Your task to perform on an android device: toggle improve location accuracy Image 0: 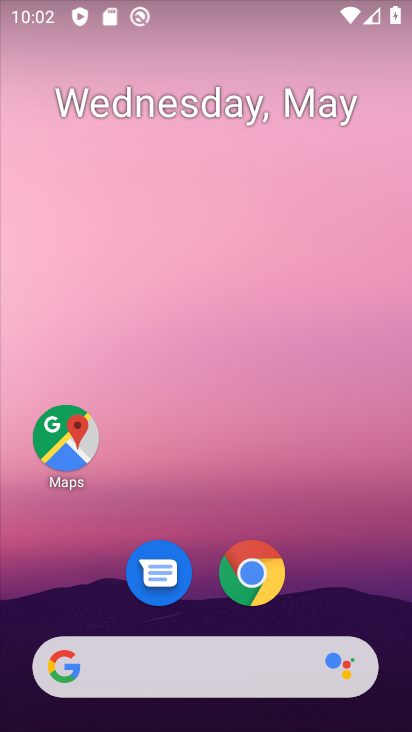
Step 0: drag from (359, 650) to (180, 145)
Your task to perform on an android device: toggle improve location accuracy Image 1: 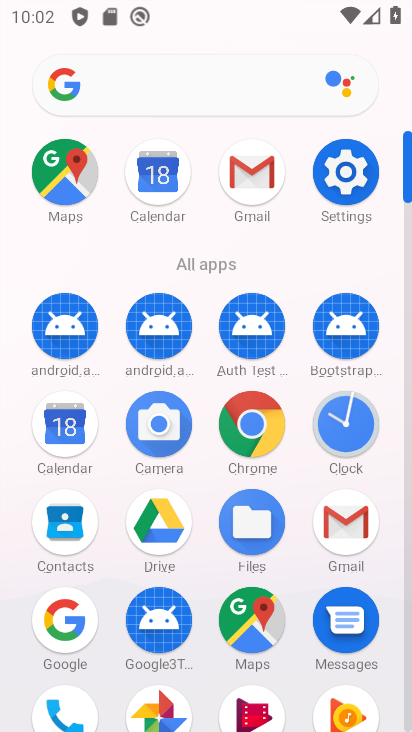
Step 1: click (356, 171)
Your task to perform on an android device: toggle improve location accuracy Image 2: 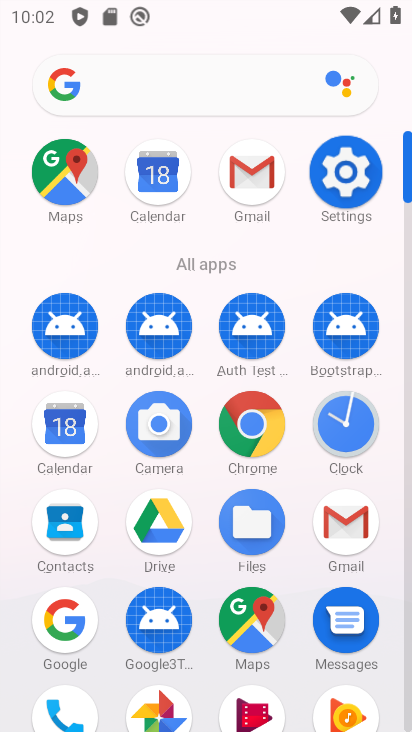
Step 2: click (356, 171)
Your task to perform on an android device: toggle improve location accuracy Image 3: 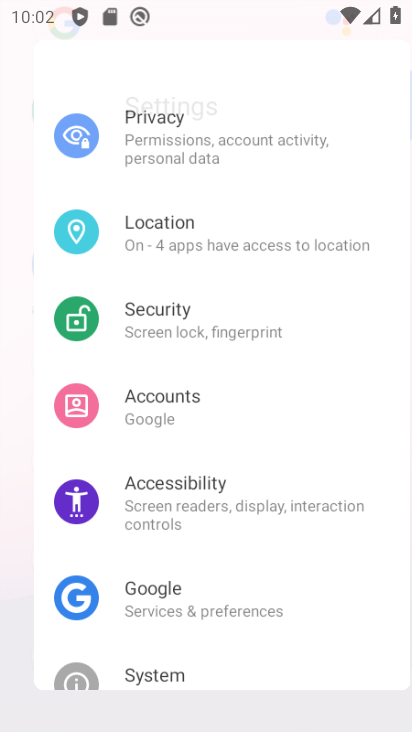
Step 3: click (356, 171)
Your task to perform on an android device: toggle improve location accuracy Image 4: 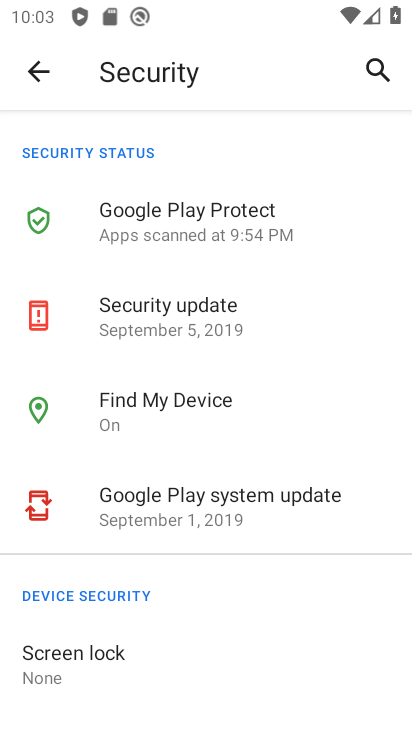
Step 4: click (26, 71)
Your task to perform on an android device: toggle improve location accuracy Image 5: 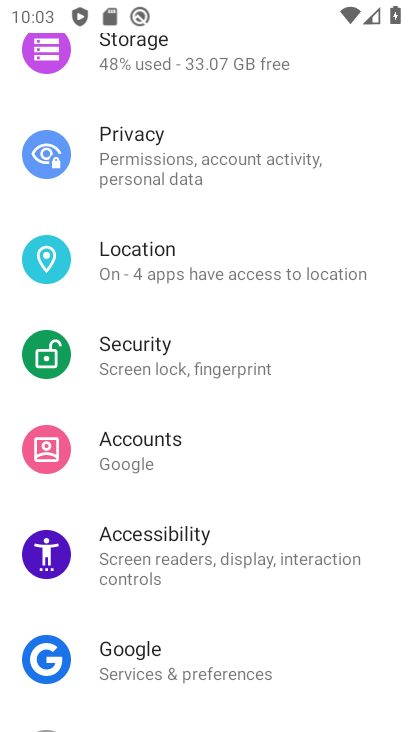
Step 5: click (148, 266)
Your task to perform on an android device: toggle improve location accuracy Image 6: 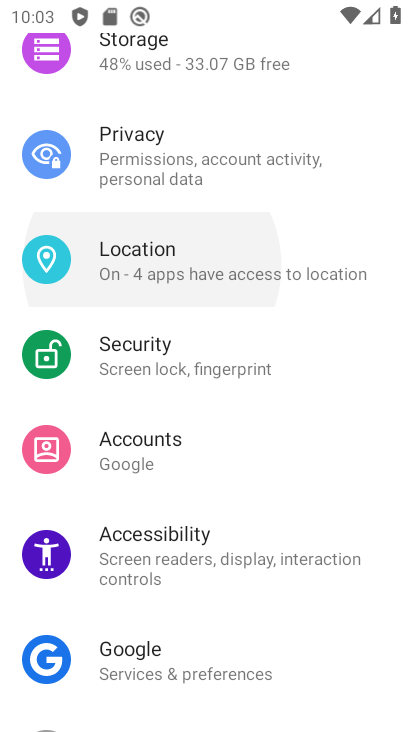
Step 6: click (148, 266)
Your task to perform on an android device: toggle improve location accuracy Image 7: 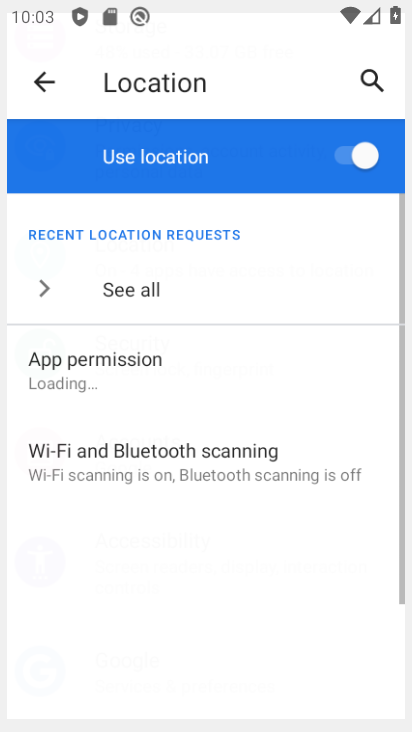
Step 7: click (148, 266)
Your task to perform on an android device: toggle improve location accuracy Image 8: 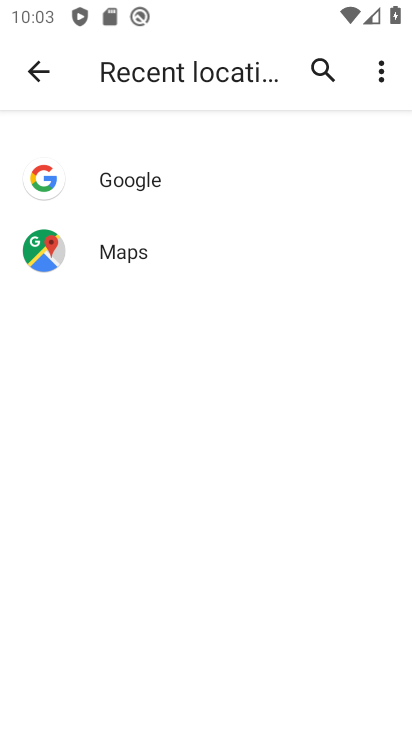
Step 8: click (42, 83)
Your task to perform on an android device: toggle improve location accuracy Image 9: 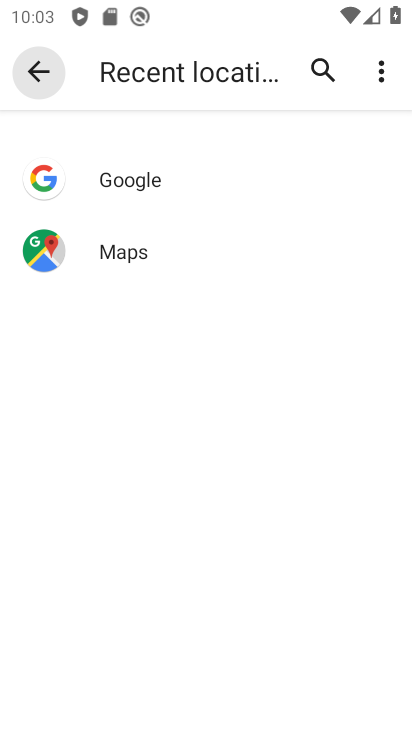
Step 9: click (42, 83)
Your task to perform on an android device: toggle improve location accuracy Image 10: 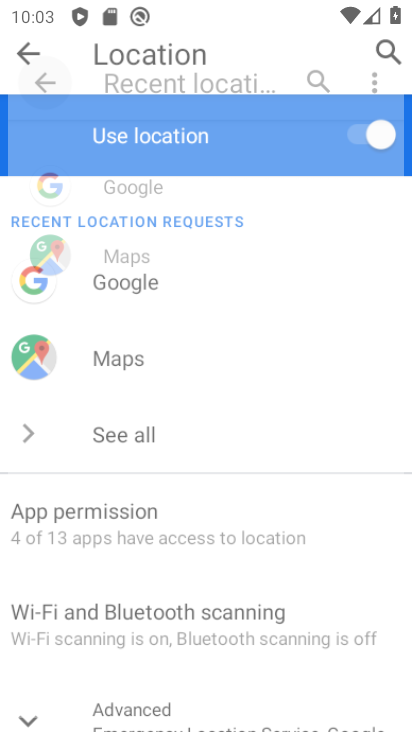
Step 10: click (42, 83)
Your task to perform on an android device: toggle improve location accuracy Image 11: 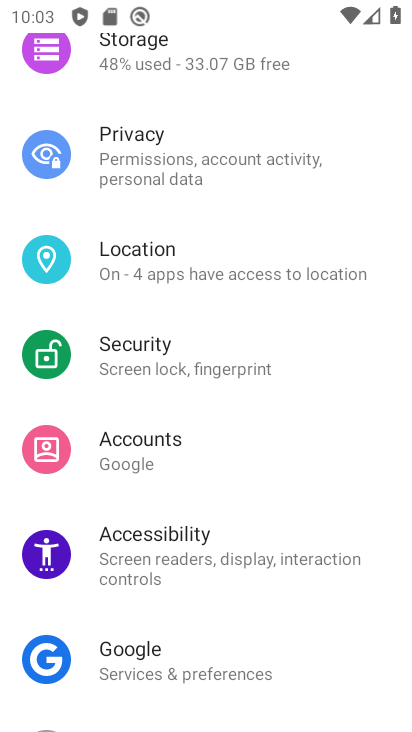
Step 11: click (161, 269)
Your task to perform on an android device: toggle improve location accuracy Image 12: 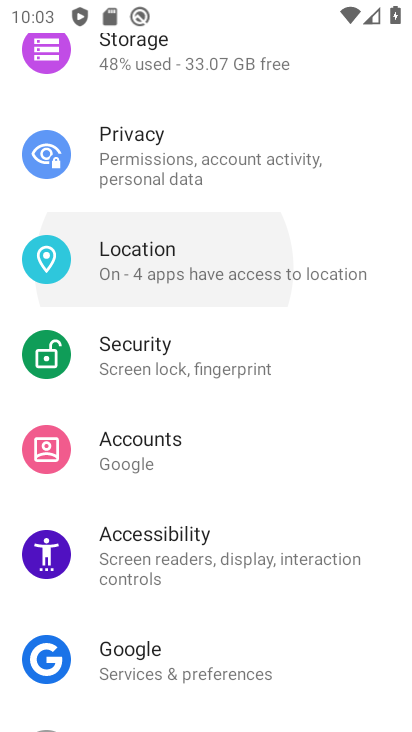
Step 12: click (161, 269)
Your task to perform on an android device: toggle improve location accuracy Image 13: 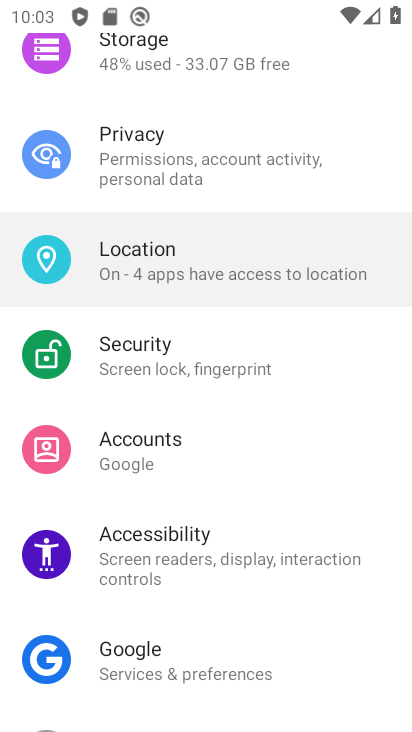
Step 13: click (161, 269)
Your task to perform on an android device: toggle improve location accuracy Image 14: 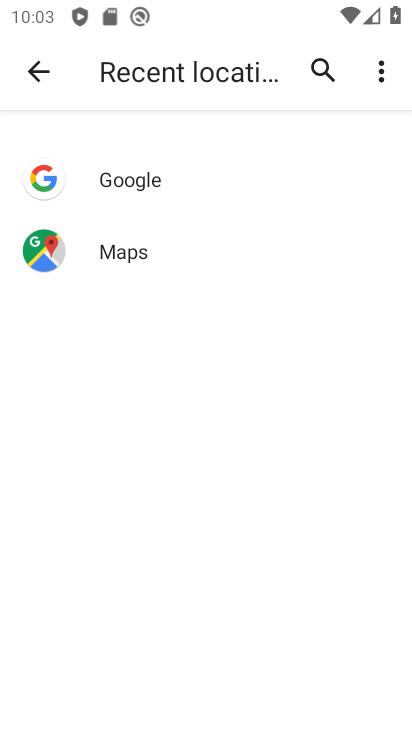
Step 14: click (35, 62)
Your task to perform on an android device: toggle improve location accuracy Image 15: 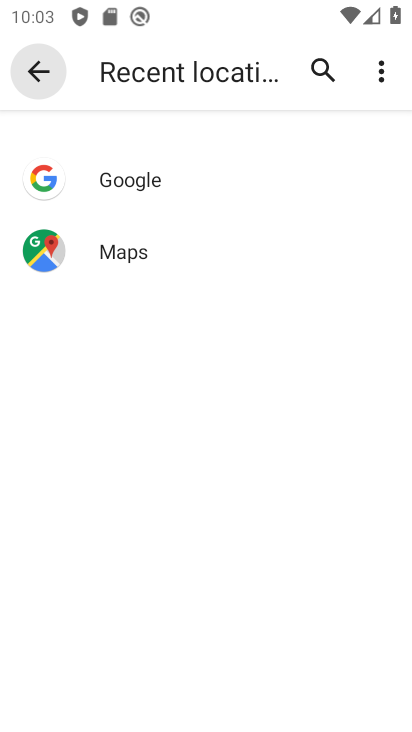
Step 15: click (33, 64)
Your task to perform on an android device: toggle improve location accuracy Image 16: 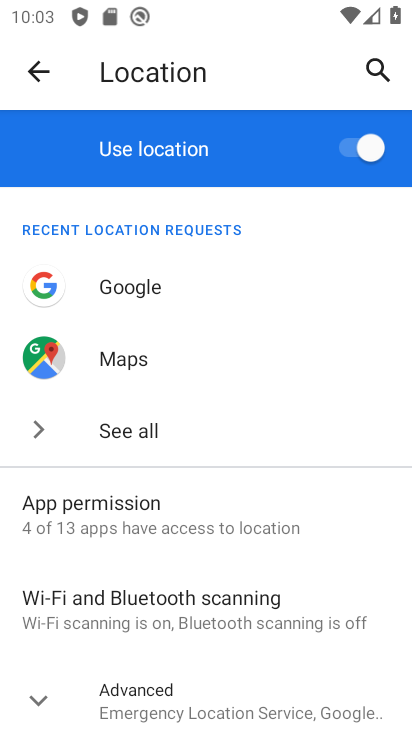
Step 16: drag from (172, 610) to (132, 389)
Your task to perform on an android device: toggle improve location accuracy Image 17: 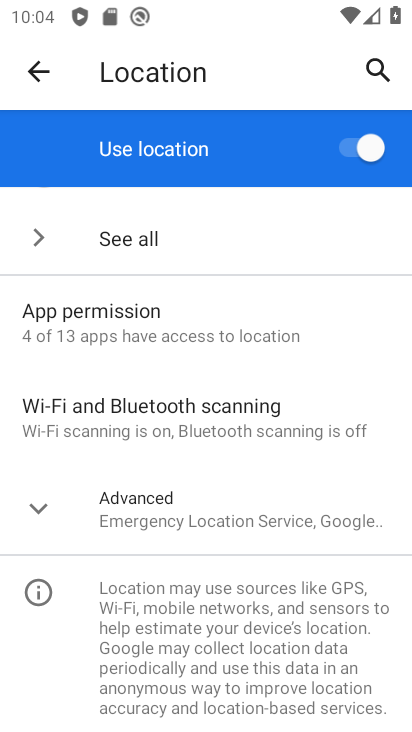
Step 17: click (119, 319)
Your task to perform on an android device: toggle improve location accuracy Image 18: 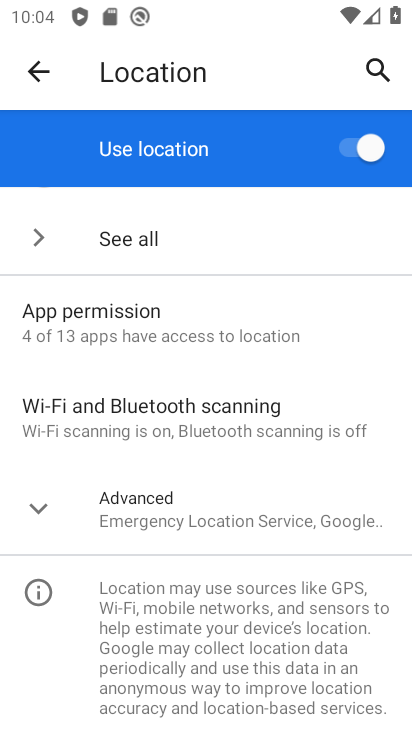
Step 18: click (119, 319)
Your task to perform on an android device: toggle improve location accuracy Image 19: 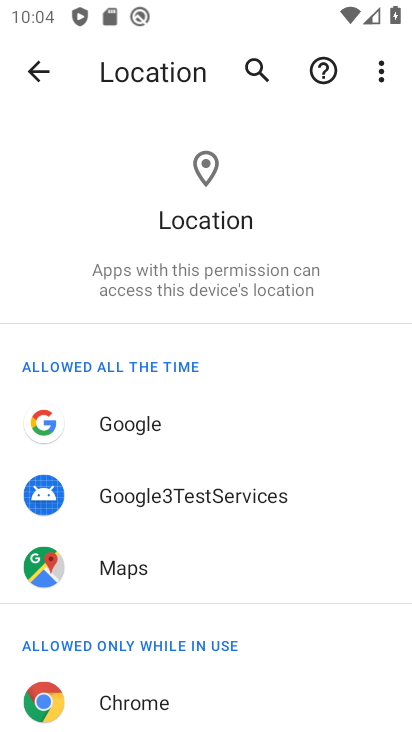
Step 19: drag from (136, 376) to (132, 137)
Your task to perform on an android device: toggle improve location accuracy Image 20: 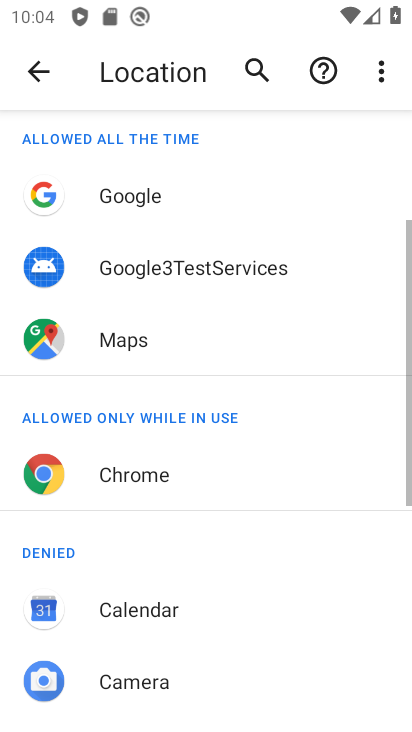
Step 20: drag from (171, 392) to (143, 134)
Your task to perform on an android device: toggle improve location accuracy Image 21: 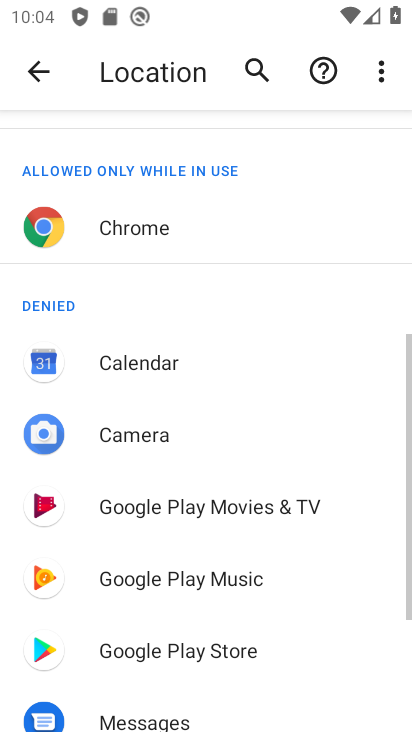
Step 21: click (29, 71)
Your task to perform on an android device: toggle improve location accuracy Image 22: 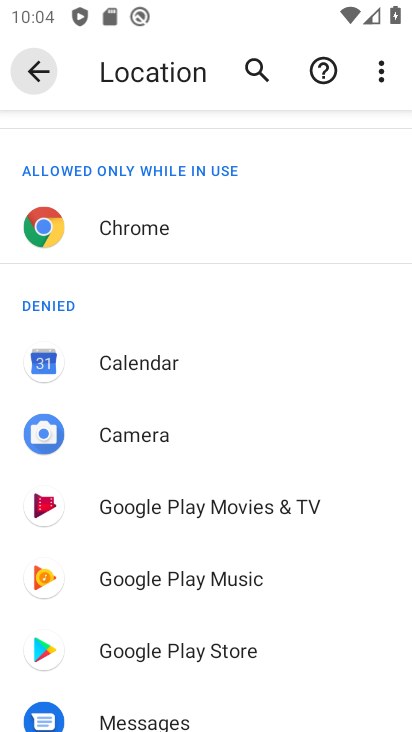
Step 22: click (29, 72)
Your task to perform on an android device: toggle improve location accuracy Image 23: 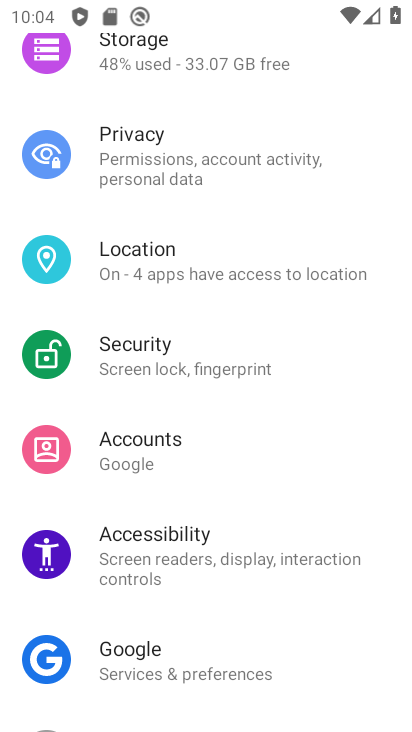
Step 23: click (159, 262)
Your task to perform on an android device: toggle improve location accuracy Image 24: 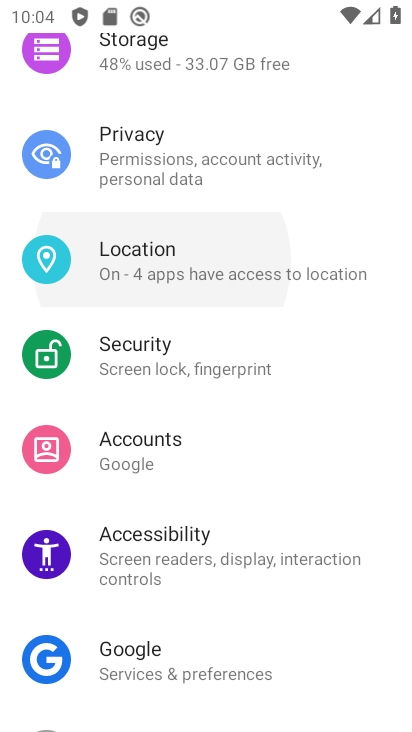
Step 24: click (159, 262)
Your task to perform on an android device: toggle improve location accuracy Image 25: 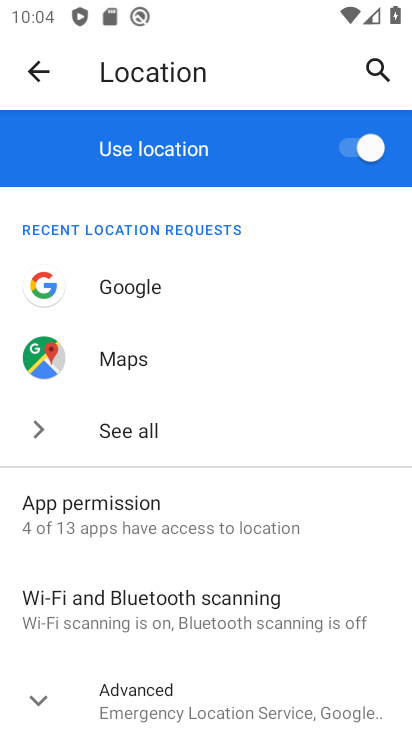
Step 25: drag from (226, 542) to (170, 186)
Your task to perform on an android device: toggle improve location accuracy Image 26: 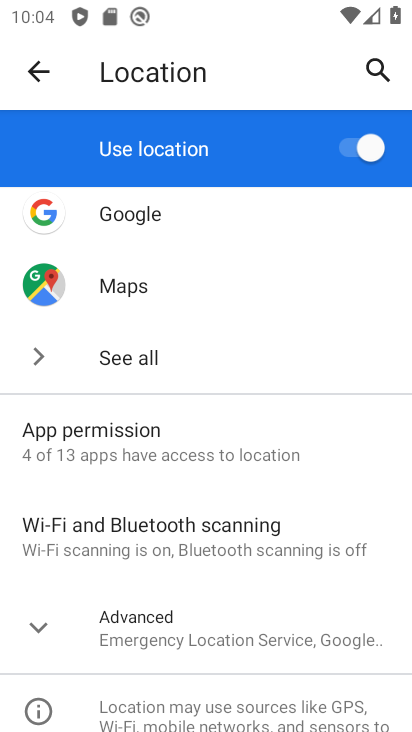
Step 26: click (158, 641)
Your task to perform on an android device: toggle improve location accuracy Image 27: 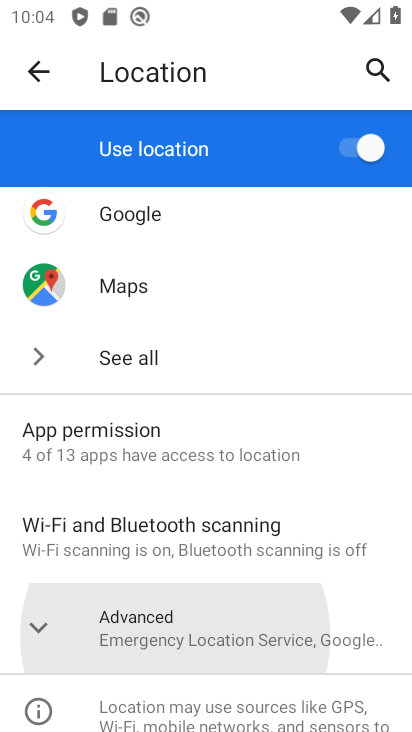
Step 27: click (150, 635)
Your task to perform on an android device: toggle improve location accuracy Image 28: 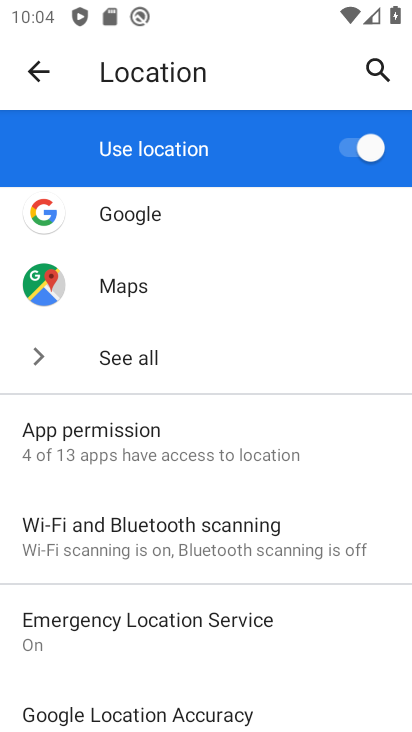
Step 28: drag from (107, 572) to (101, 285)
Your task to perform on an android device: toggle improve location accuracy Image 29: 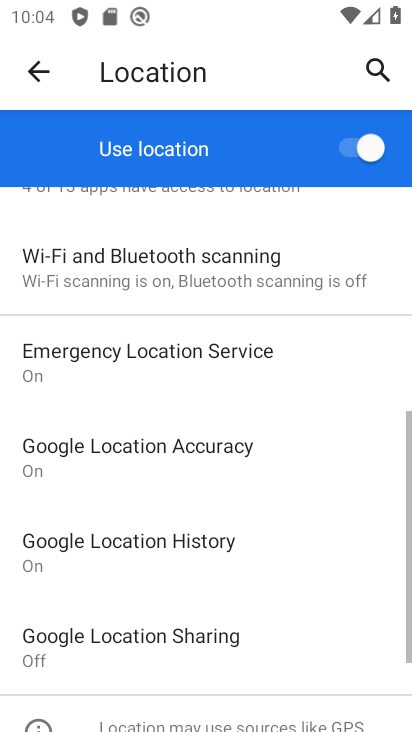
Step 29: drag from (132, 453) to (172, 135)
Your task to perform on an android device: toggle improve location accuracy Image 30: 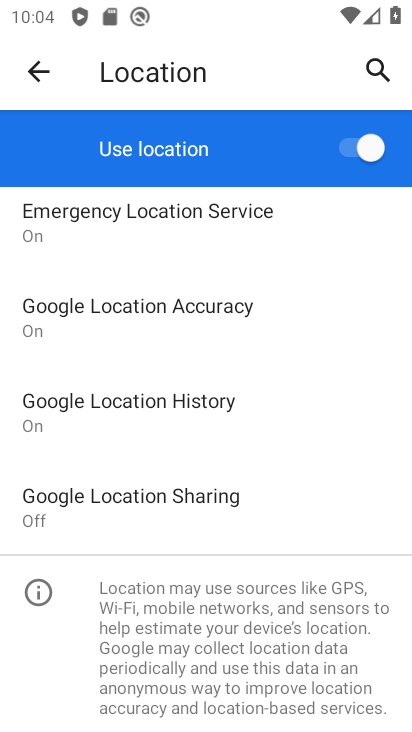
Step 30: click (97, 304)
Your task to perform on an android device: toggle improve location accuracy Image 31: 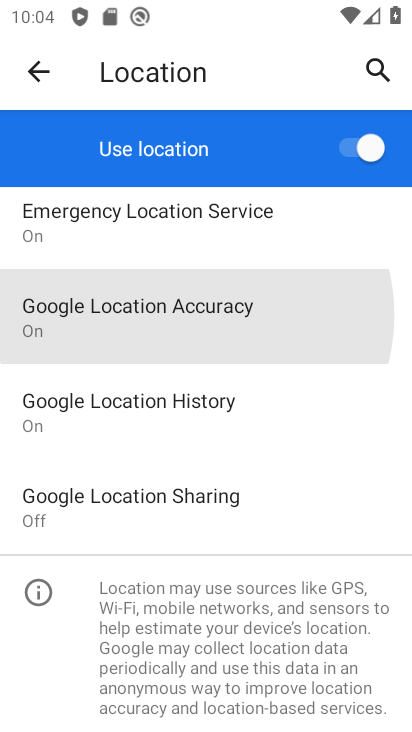
Step 31: click (97, 303)
Your task to perform on an android device: toggle improve location accuracy Image 32: 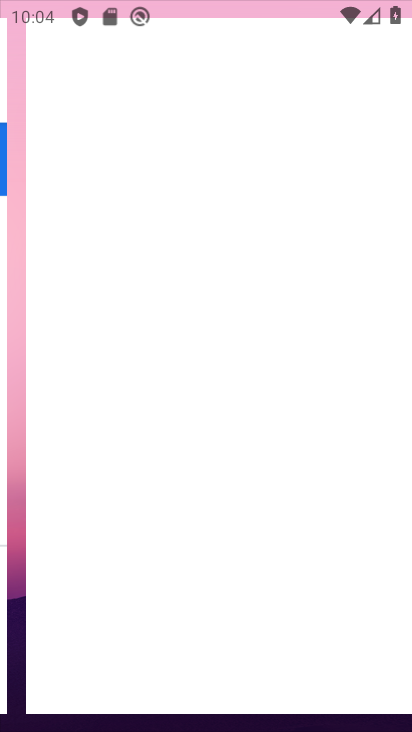
Step 32: click (97, 302)
Your task to perform on an android device: toggle improve location accuracy Image 33: 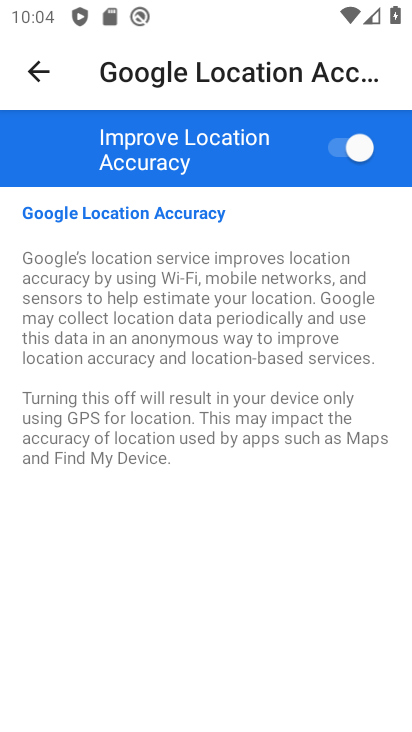
Step 33: task complete